Your task to perform on an android device: Is it going to rain this weekend? Image 0: 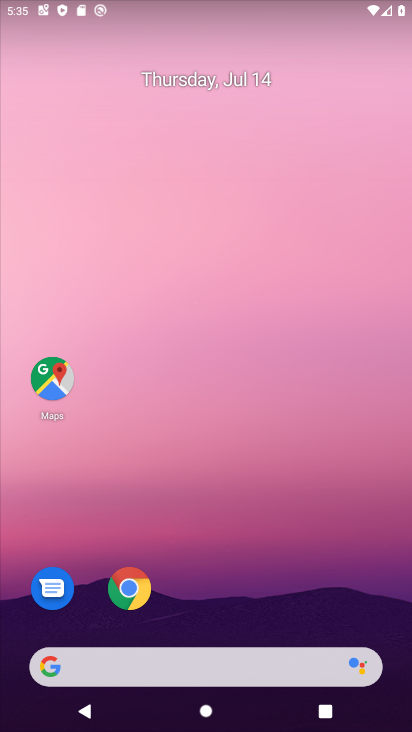
Step 0: drag from (178, 630) to (190, 149)
Your task to perform on an android device: Is it going to rain this weekend? Image 1: 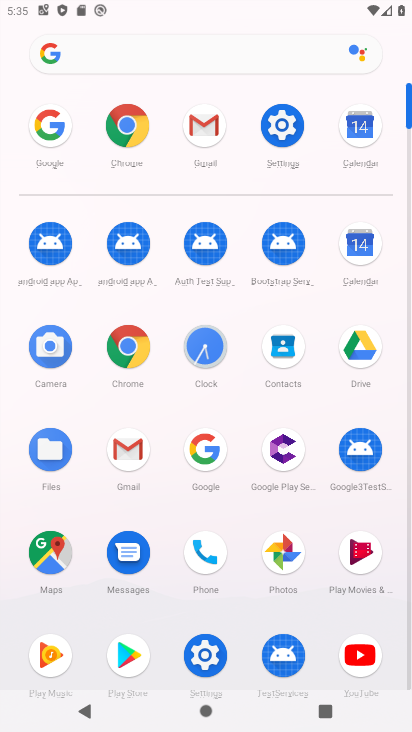
Step 1: click (199, 437)
Your task to perform on an android device: Is it going to rain this weekend? Image 2: 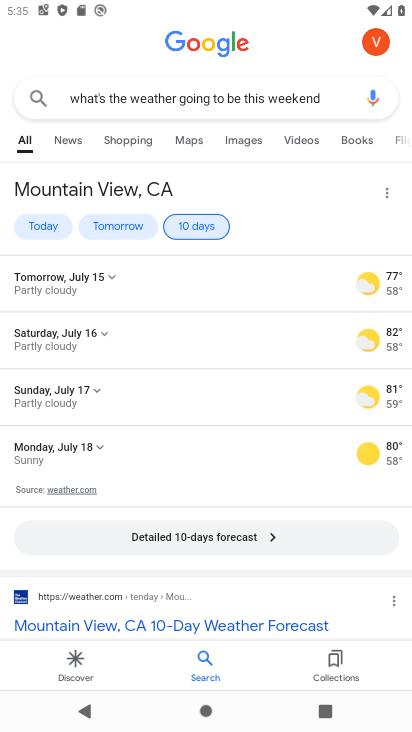
Step 2: click (110, 95)
Your task to perform on an android device: Is it going to rain this weekend? Image 3: 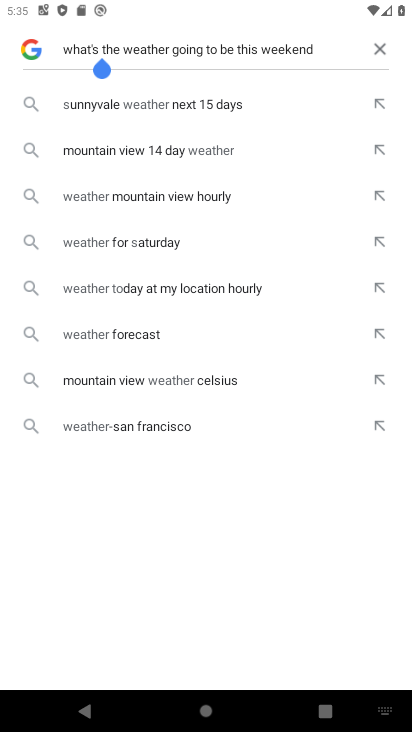
Step 3: click (371, 52)
Your task to perform on an android device: Is it going to rain this weekend? Image 4: 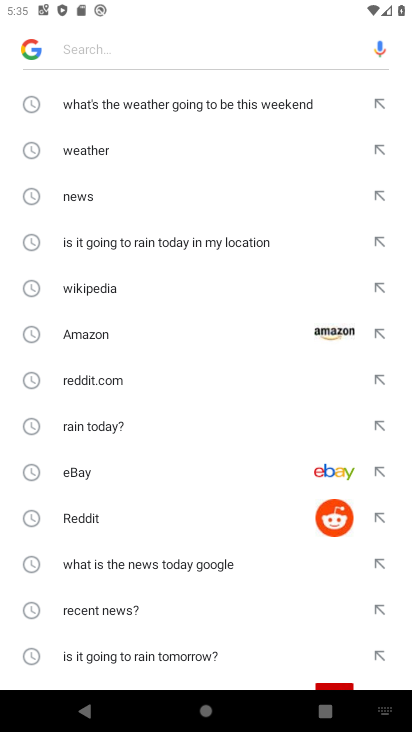
Step 4: click (147, 243)
Your task to perform on an android device: Is it going to rain this weekend? Image 5: 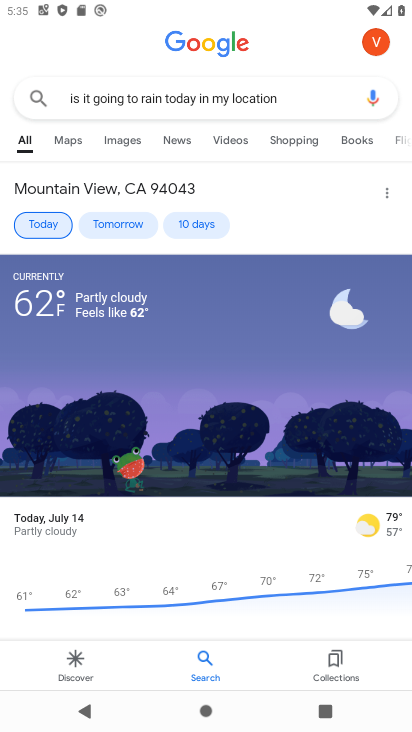
Step 5: click (199, 228)
Your task to perform on an android device: Is it going to rain this weekend? Image 6: 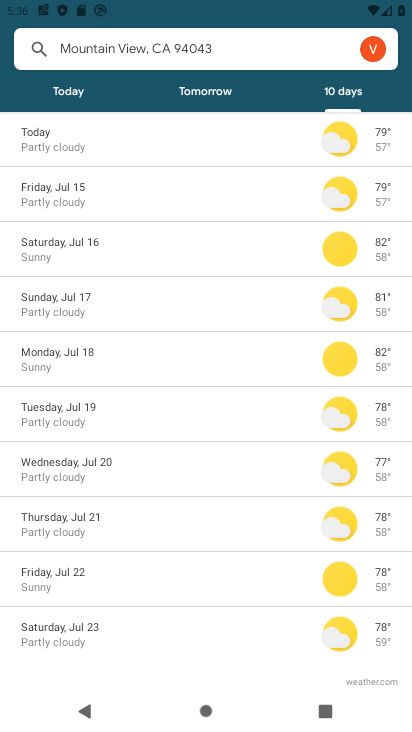
Step 6: task complete